Your task to perform on an android device: Open Reddit.com Image 0: 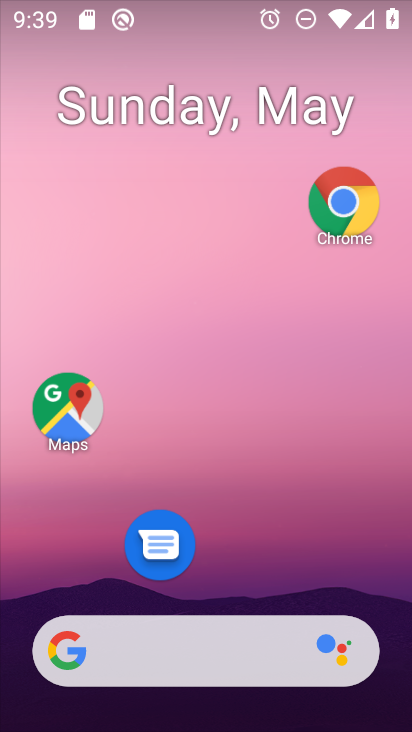
Step 0: click (337, 203)
Your task to perform on an android device: Open Reddit.com Image 1: 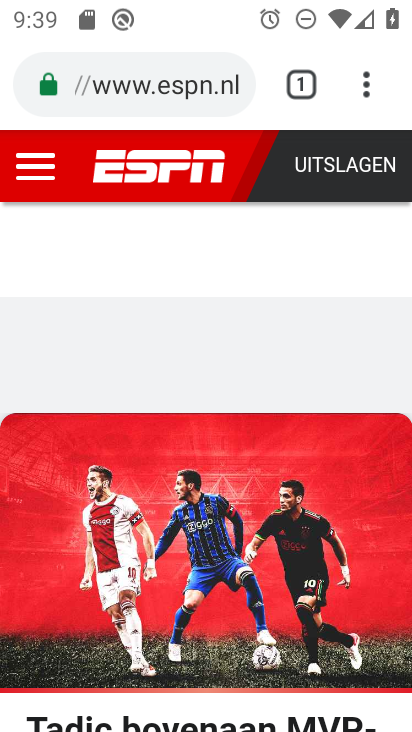
Step 1: click (200, 84)
Your task to perform on an android device: Open Reddit.com Image 2: 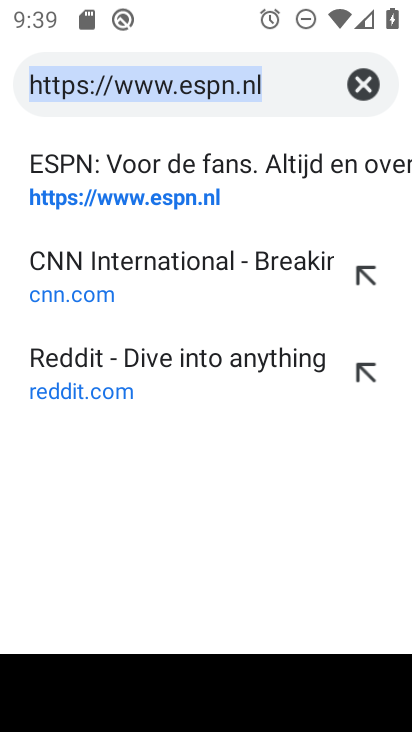
Step 2: type "reddit.com"
Your task to perform on an android device: Open Reddit.com Image 3: 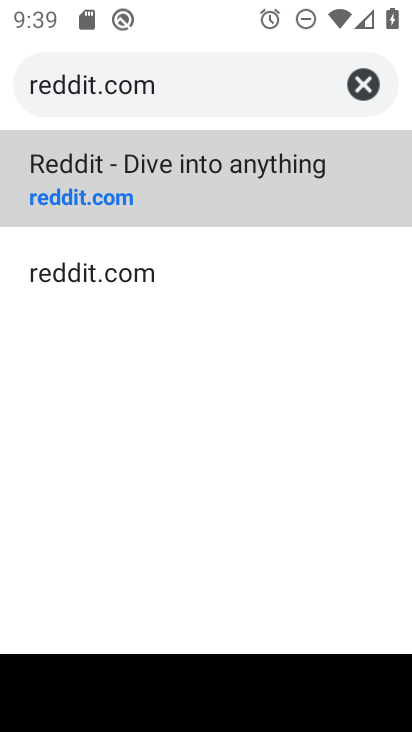
Step 3: click (87, 201)
Your task to perform on an android device: Open Reddit.com Image 4: 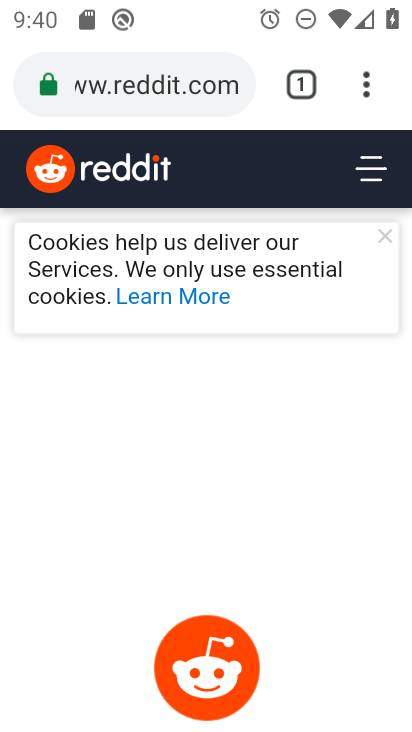
Step 4: task complete